Your task to perform on an android device: turn on notifications settings in the gmail app Image 0: 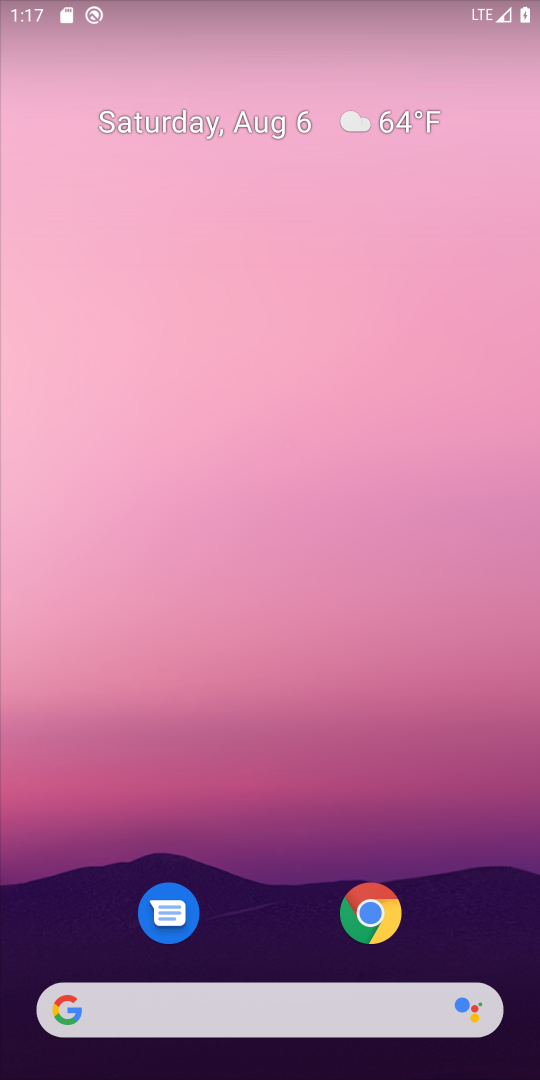
Step 0: press home button
Your task to perform on an android device: turn on notifications settings in the gmail app Image 1: 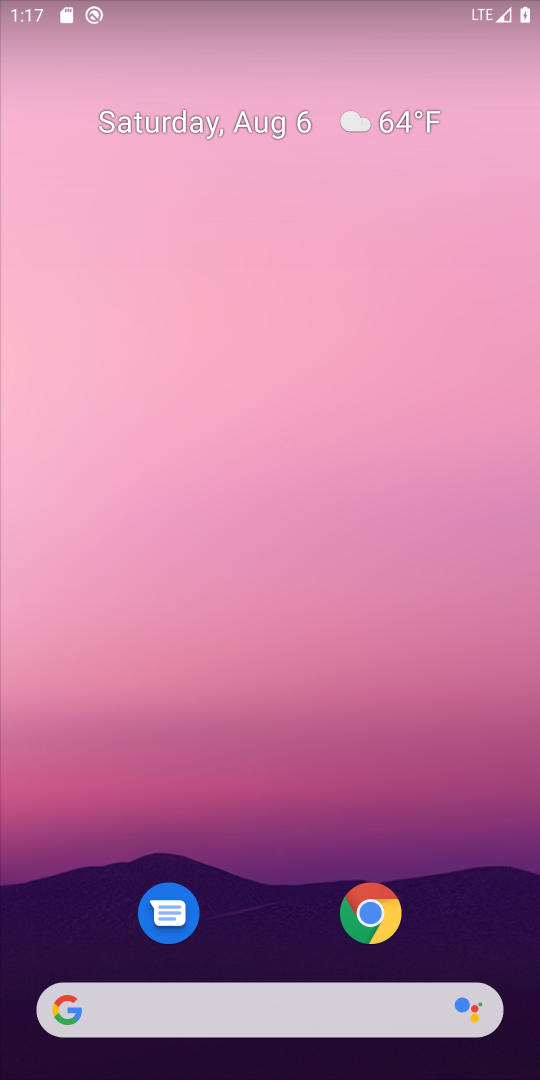
Step 1: drag from (280, 927) to (280, 299)
Your task to perform on an android device: turn on notifications settings in the gmail app Image 2: 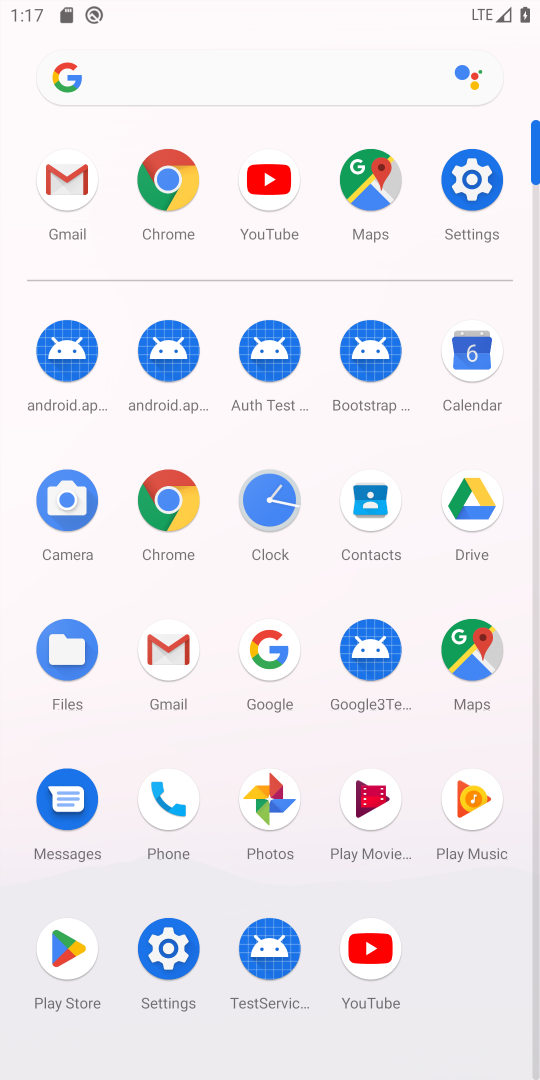
Step 2: click (161, 658)
Your task to perform on an android device: turn on notifications settings in the gmail app Image 3: 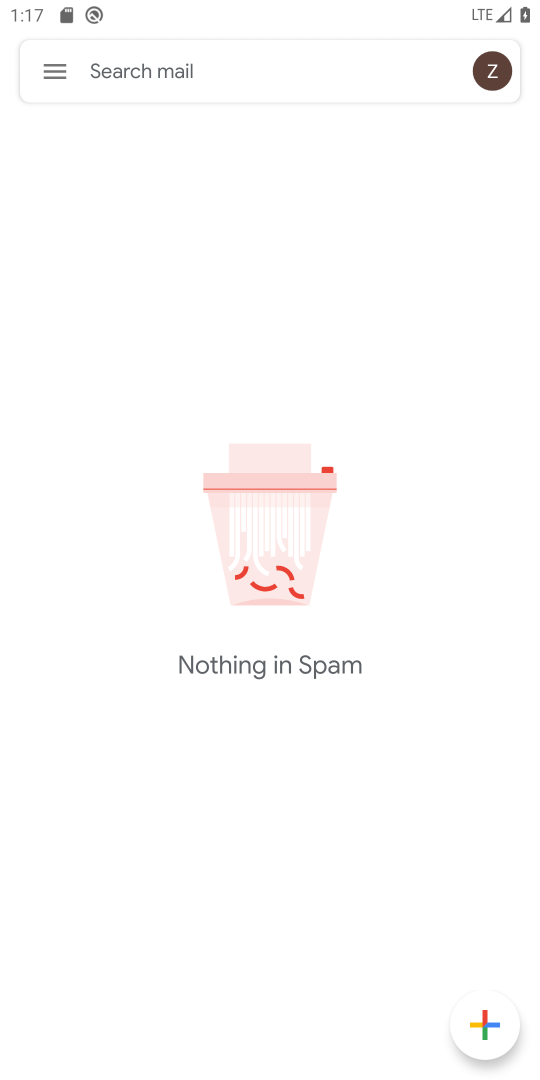
Step 3: click (57, 64)
Your task to perform on an android device: turn on notifications settings in the gmail app Image 4: 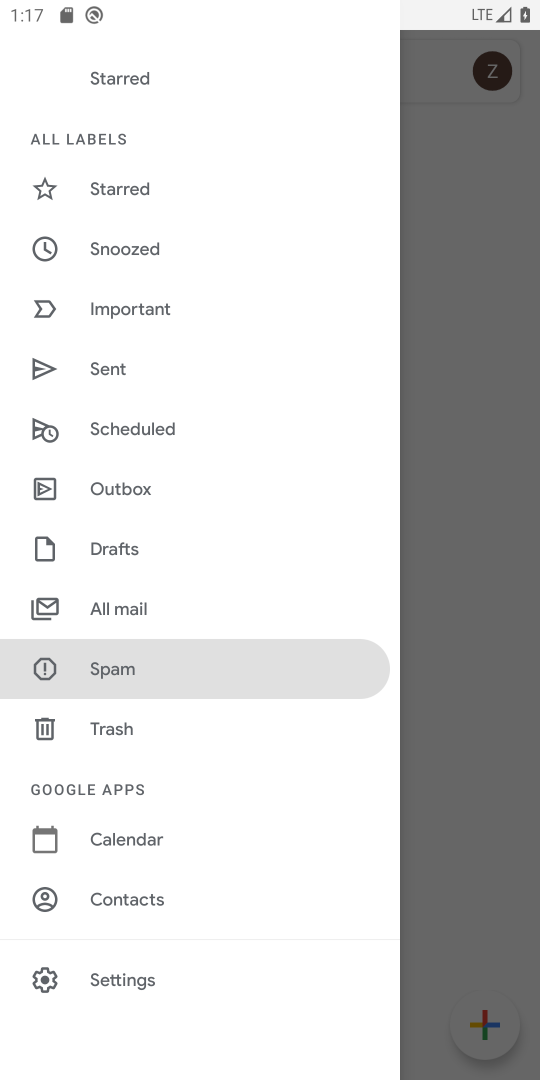
Step 4: drag from (264, 903) to (236, 732)
Your task to perform on an android device: turn on notifications settings in the gmail app Image 5: 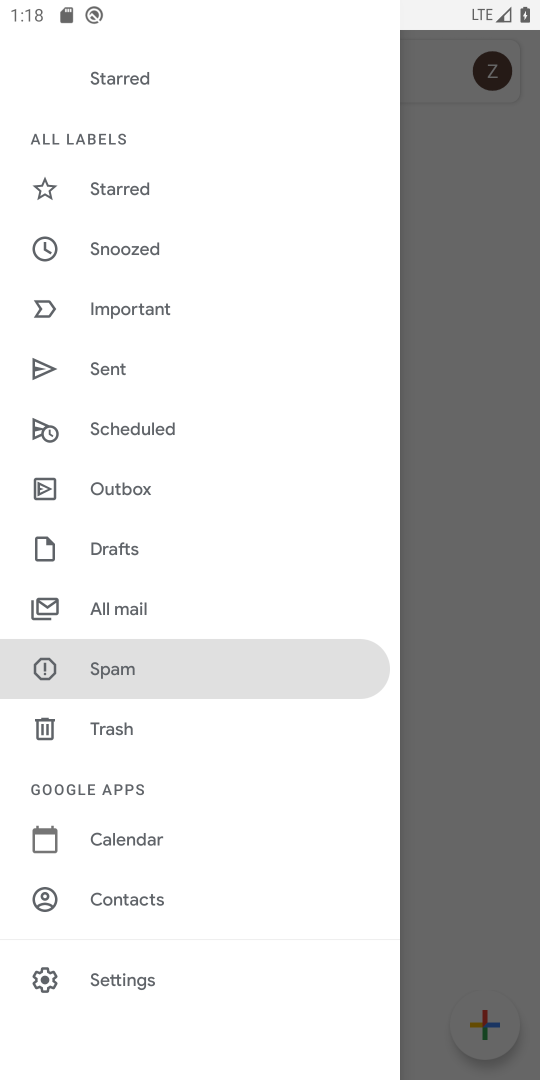
Step 5: click (154, 980)
Your task to perform on an android device: turn on notifications settings in the gmail app Image 6: 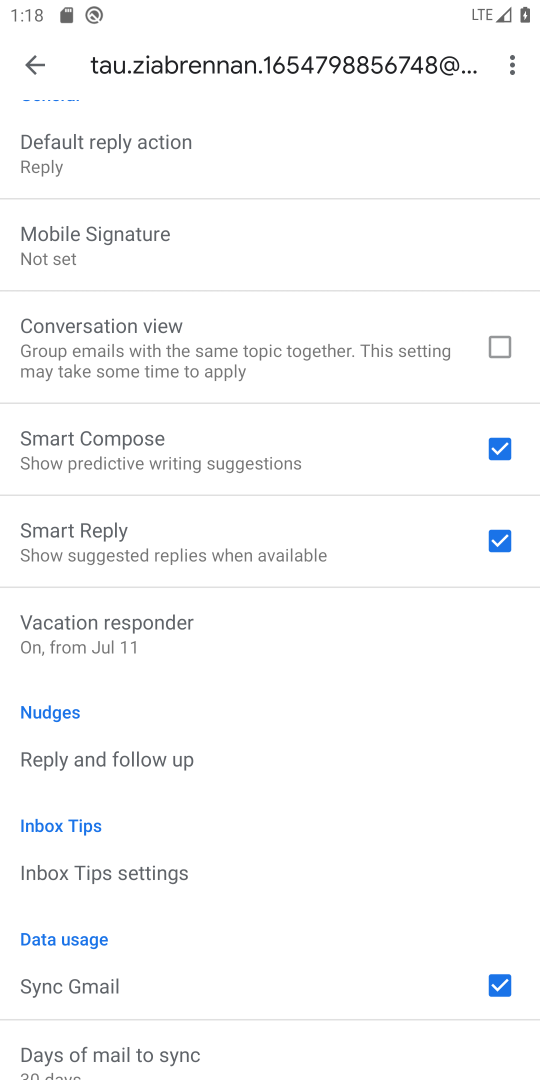
Step 6: drag from (389, 799) to (376, 652)
Your task to perform on an android device: turn on notifications settings in the gmail app Image 7: 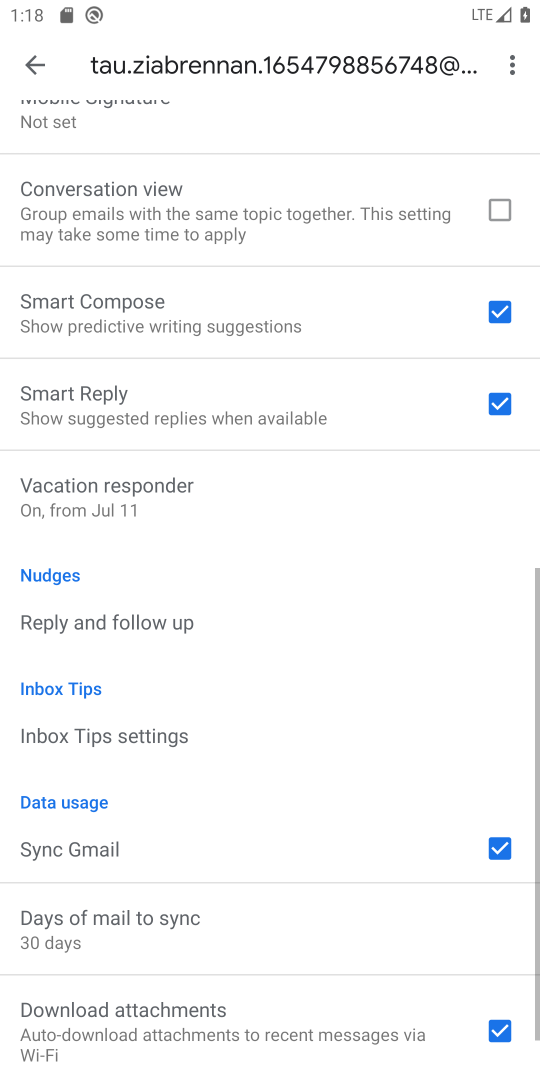
Step 7: drag from (338, 834) to (337, 649)
Your task to perform on an android device: turn on notifications settings in the gmail app Image 8: 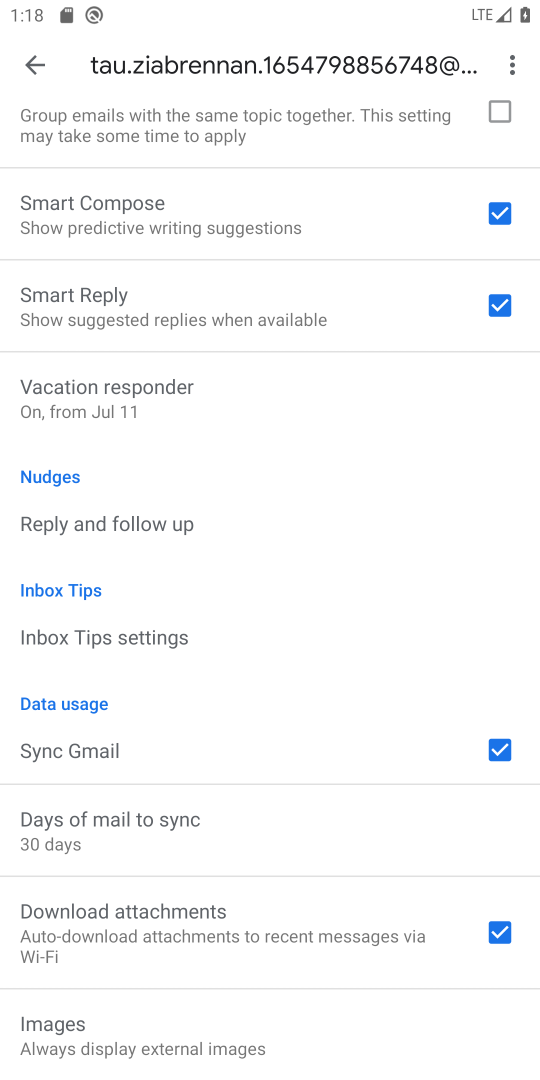
Step 8: drag from (369, 504) to (371, 686)
Your task to perform on an android device: turn on notifications settings in the gmail app Image 9: 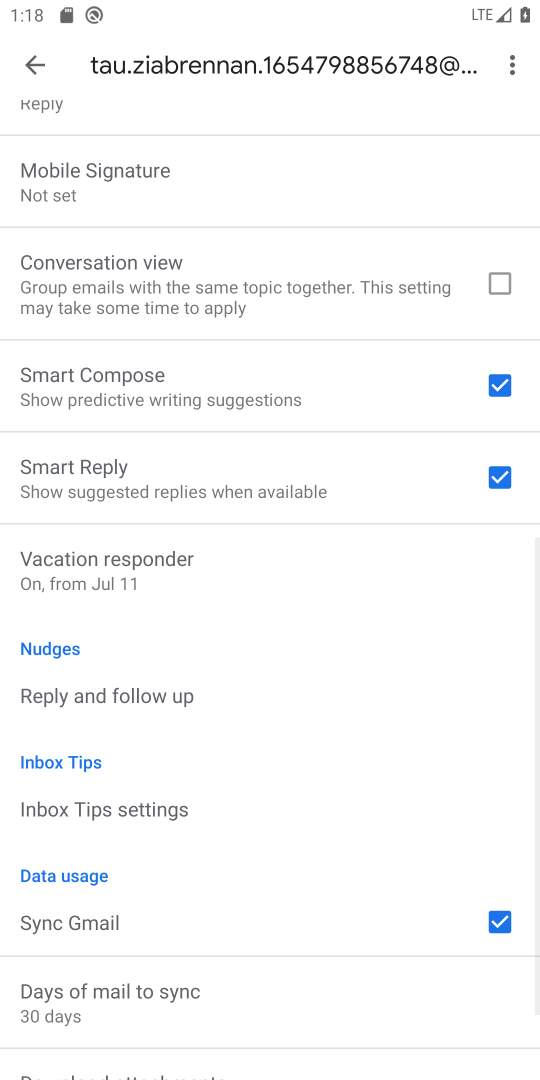
Step 9: drag from (391, 499) to (393, 658)
Your task to perform on an android device: turn on notifications settings in the gmail app Image 10: 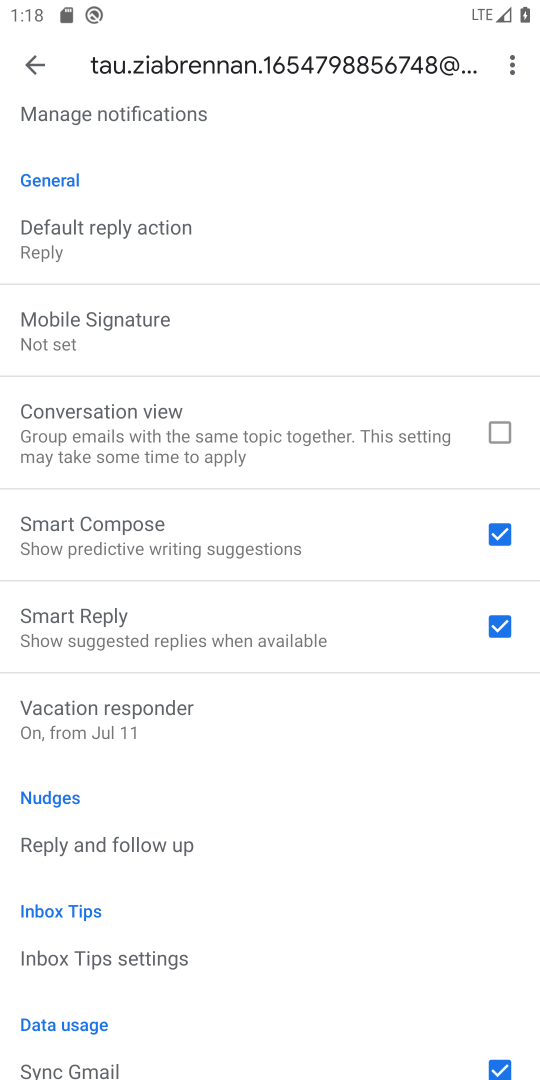
Step 10: drag from (390, 342) to (386, 653)
Your task to perform on an android device: turn on notifications settings in the gmail app Image 11: 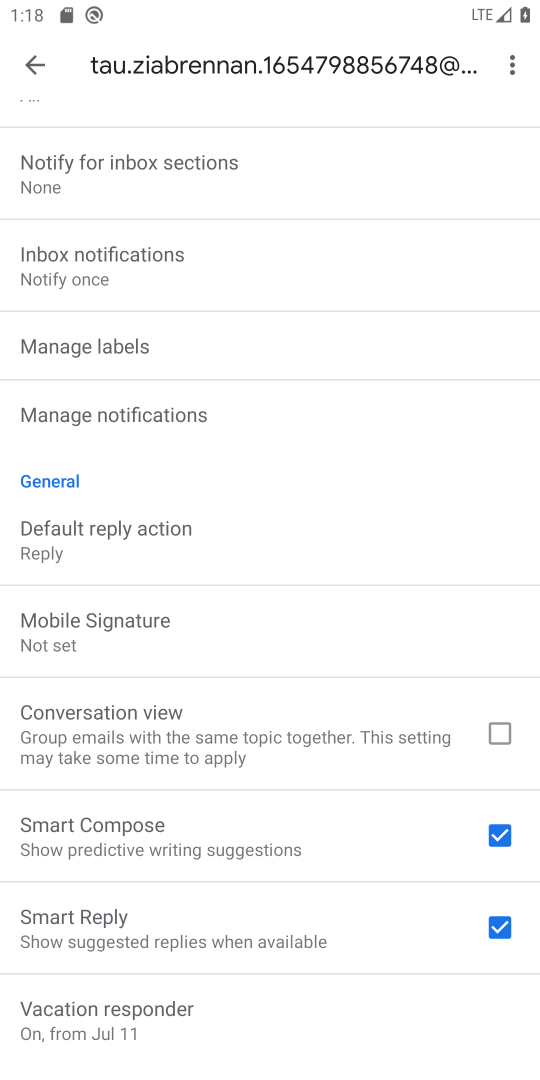
Step 11: click (178, 417)
Your task to perform on an android device: turn on notifications settings in the gmail app Image 12: 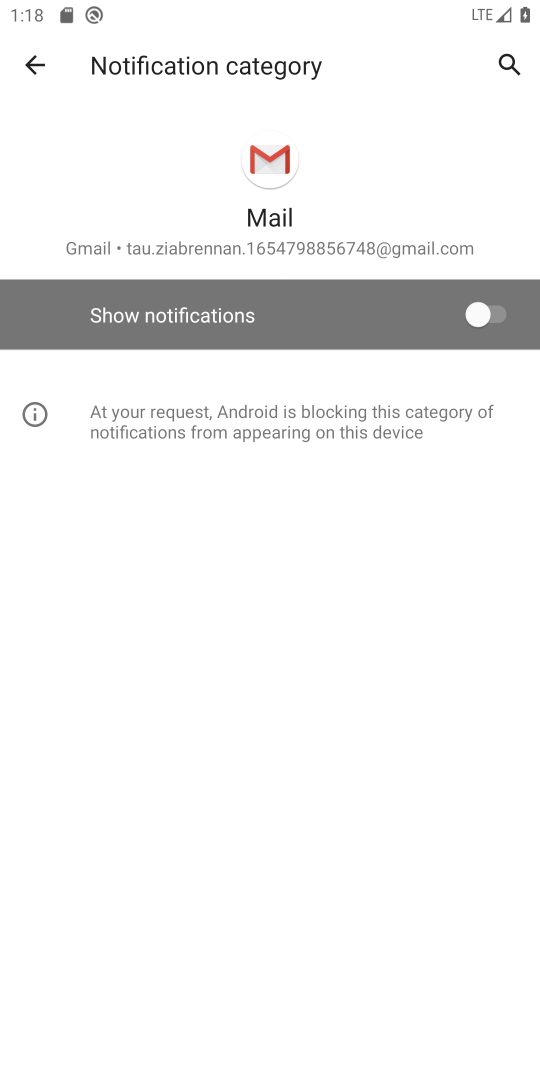
Step 12: click (487, 316)
Your task to perform on an android device: turn on notifications settings in the gmail app Image 13: 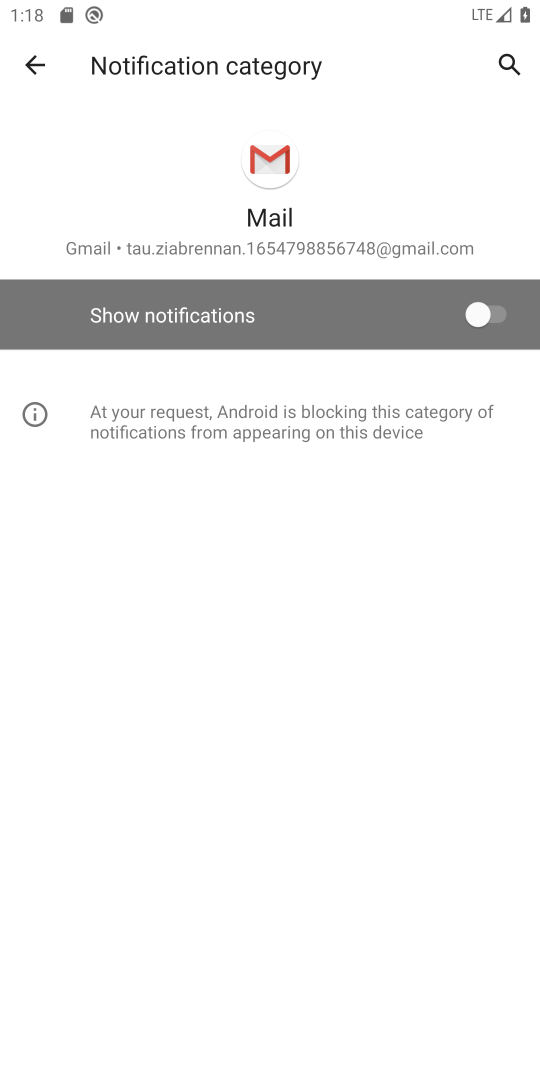
Step 13: click (476, 321)
Your task to perform on an android device: turn on notifications settings in the gmail app Image 14: 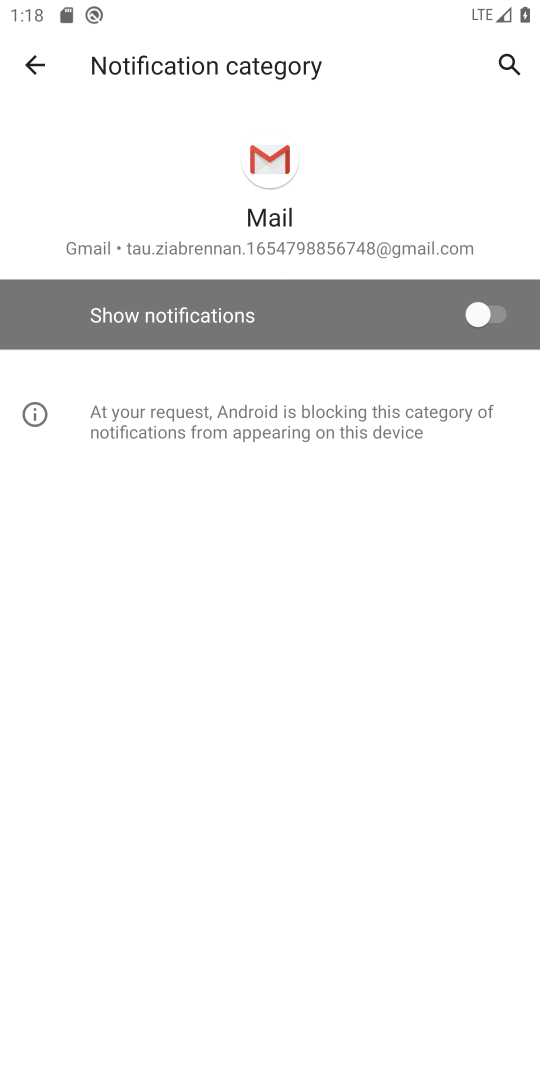
Step 14: task complete